Your task to perform on an android device: Open Chrome and go to settings Image 0: 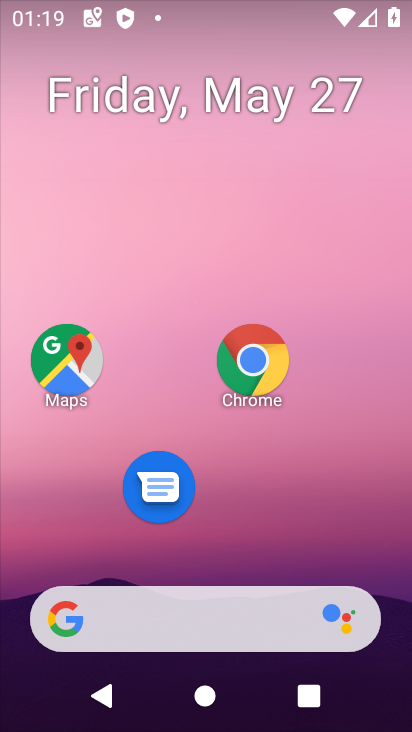
Step 0: click (252, 363)
Your task to perform on an android device: Open Chrome and go to settings Image 1: 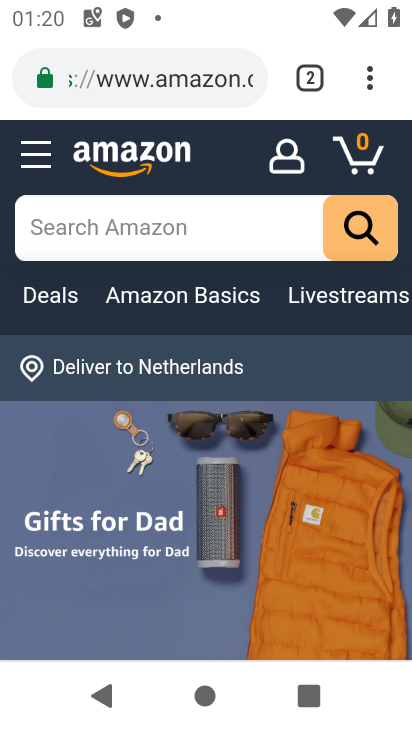
Step 1: click (357, 75)
Your task to perform on an android device: Open Chrome and go to settings Image 2: 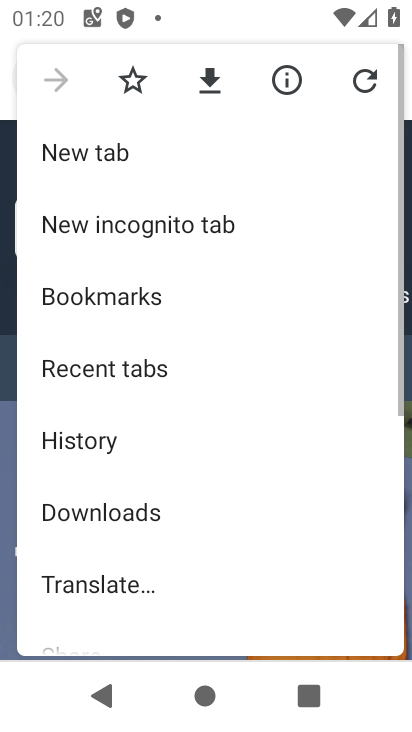
Step 2: drag from (170, 566) to (187, 153)
Your task to perform on an android device: Open Chrome and go to settings Image 3: 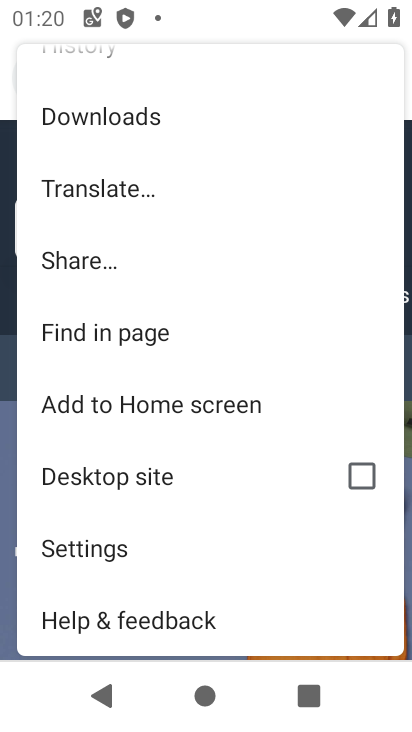
Step 3: click (121, 530)
Your task to perform on an android device: Open Chrome and go to settings Image 4: 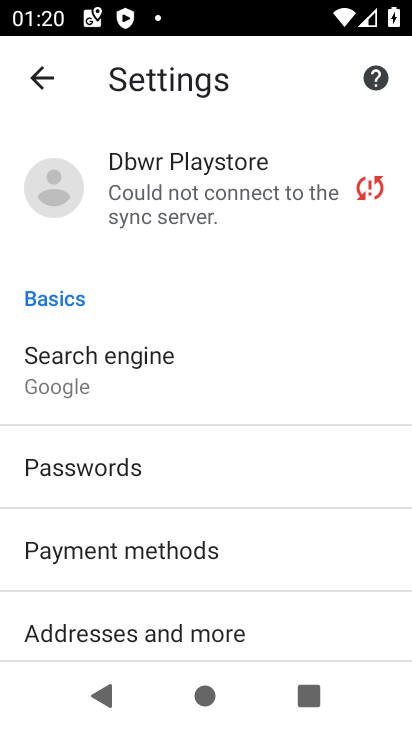
Step 4: task complete